Your task to perform on an android device: Clear the shopping cart on target. Add lg ultragear to the cart on target Image 0: 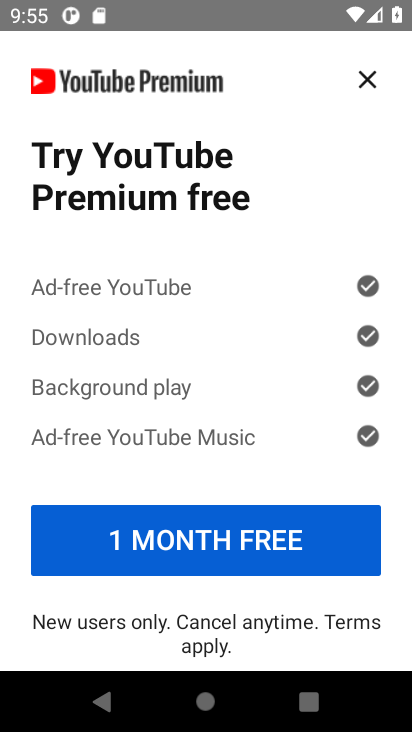
Step 0: press home button
Your task to perform on an android device: Clear the shopping cart on target. Add lg ultragear to the cart on target Image 1: 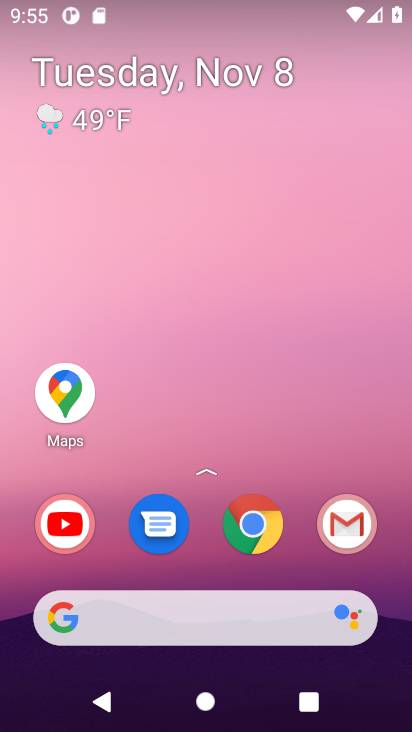
Step 1: click (246, 534)
Your task to perform on an android device: Clear the shopping cart on target. Add lg ultragear to the cart on target Image 2: 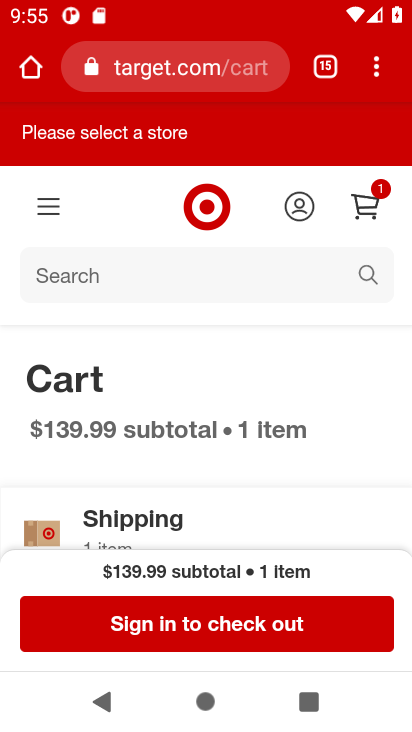
Step 2: click (382, 198)
Your task to perform on an android device: Clear the shopping cart on target. Add lg ultragear to the cart on target Image 3: 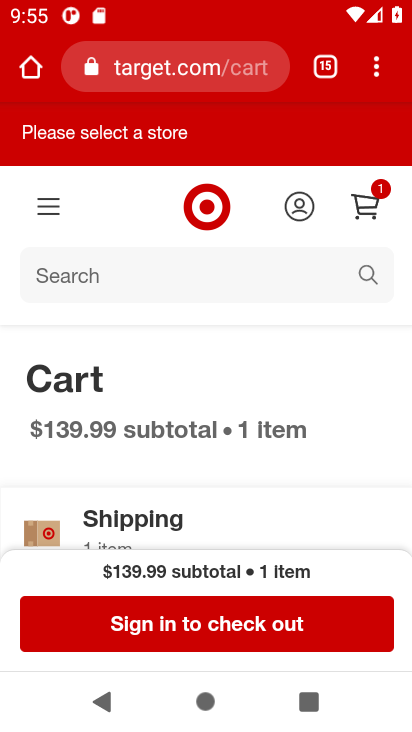
Step 3: drag from (235, 496) to (239, 81)
Your task to perform on an android device: Clear the shopping cart on target. Add lg ultragear to the cart on target Image 4: 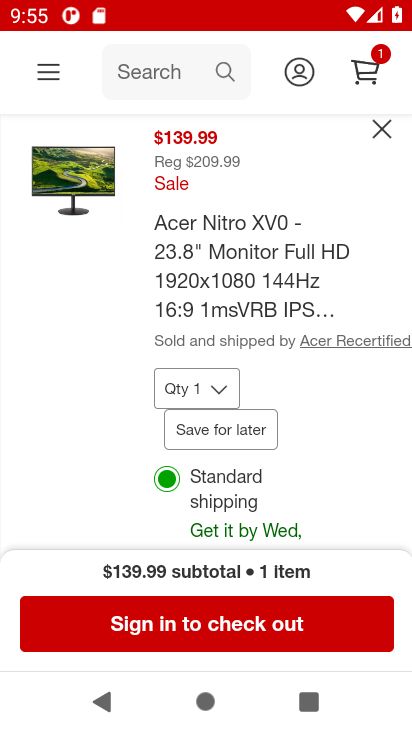
Step 4: click (380, 130)
Your task to perform on an android device: Clear the shopping cart on target. Add lg ultragear to the cart on target Image 5: 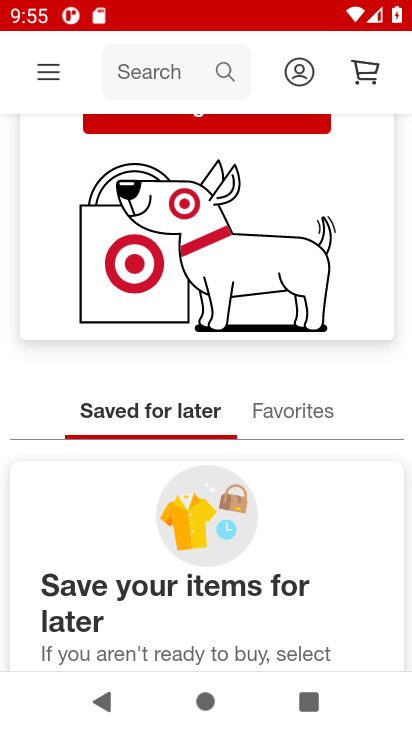
Step 5: drag from (300, 301) to (339, 546)
Your task to perform on an android device: Clear the shopping cart on target. Add lg ultragear to the cart on target Image 6: 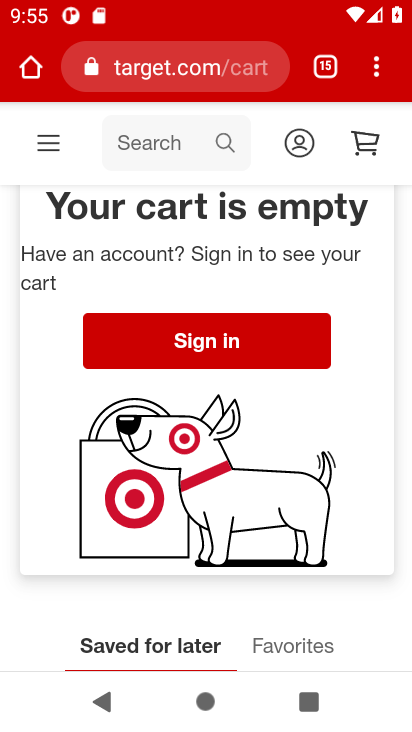
Step 6: click (231, 146)
Your task to perform on an android device: Clear the shopping cart on target. Add lg ultragear to the cart on target Image 7: 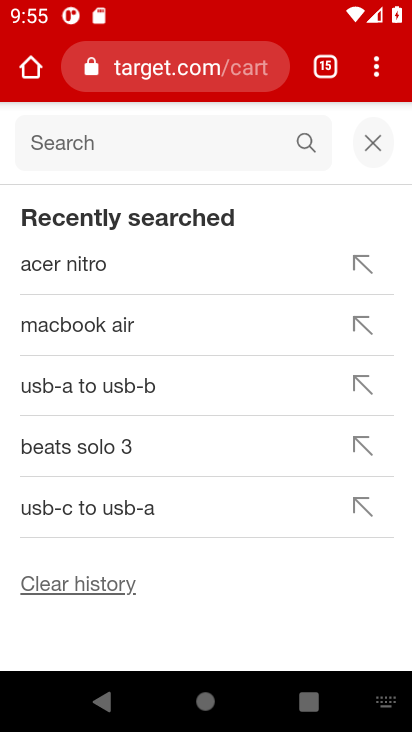
Step 7: type " lg ultragear "
Your task to perform on an android device: Clear the shopping cart on target. Add lg ultragear to the cart on target Image 8: 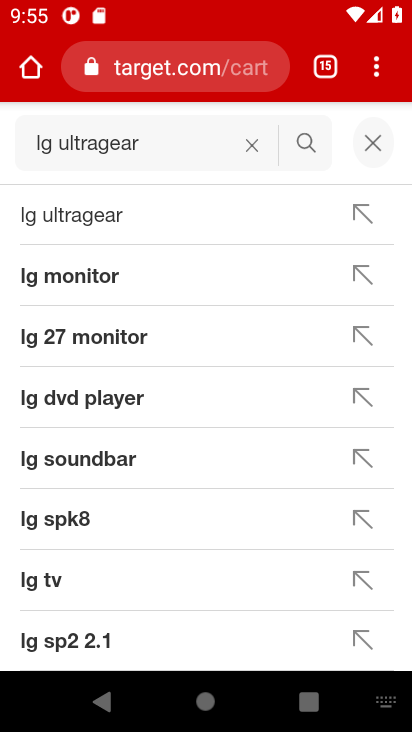
Step 8: click (100, 217)
Your task to perform on an android device: Clear the shopping cart on target. Add lg ultragear to the cart on target Image 9: 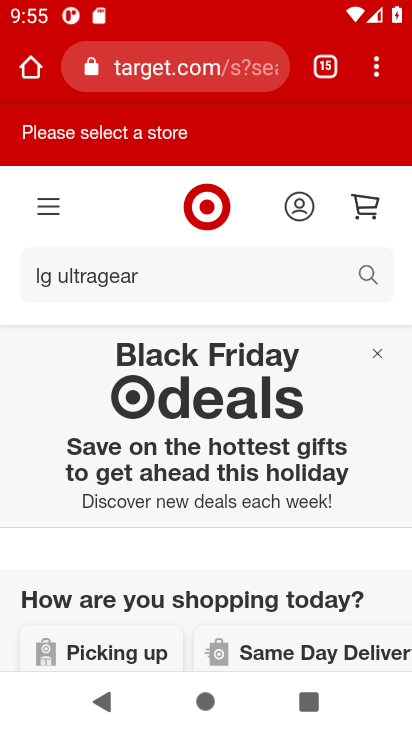
Step 9: drag from (199, 464) to (189, 159)
Your task to perform on an android device: Clear the shopping cart on target. Add lg ultragear to the cart on target Image 10: 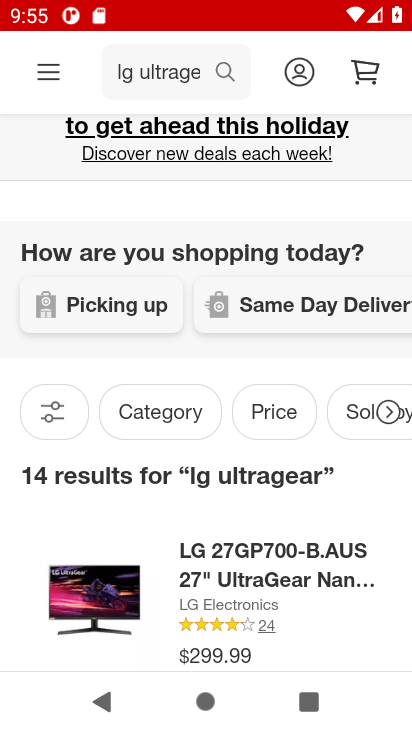
Step 10: drag from (212, 439) to (208, 237)
Your task to perform on an android device: Clear the shopping cart on target. Add lg ultragear to the cart on target Image 11: 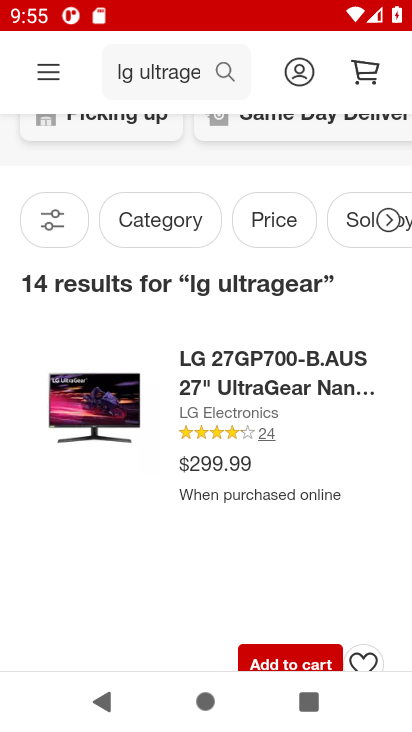
Step 11: drag from (214, 438) to (214, 294)
Your task to perform on an android device: Clear the shopping cart on target. Add lg ultragear to the cart on target Image 12: 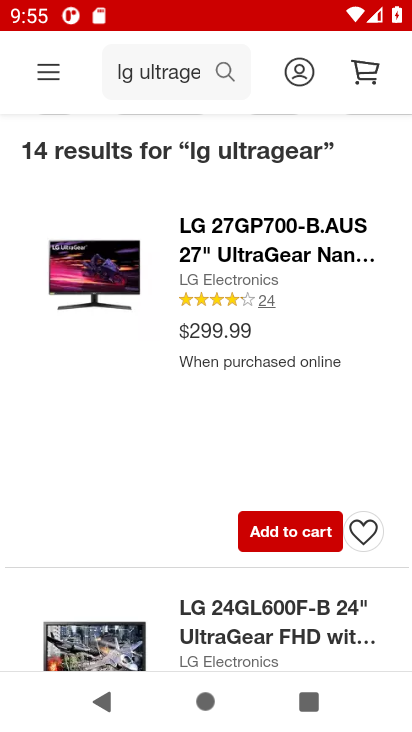
Step 12: click (273, 529)
Your task to perform on an android device: Clear the shopping cart on target. Add lg ultragear to the cart on target Image 13: 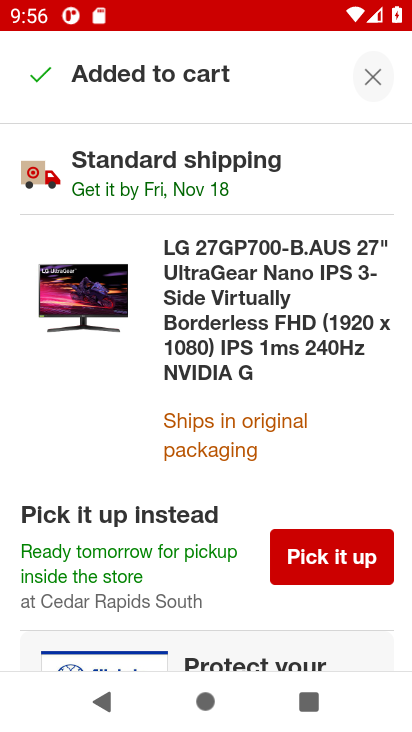
Step 13: task complete